Your task to perform on an android device: Do I have any events tomorrow? Image 0: 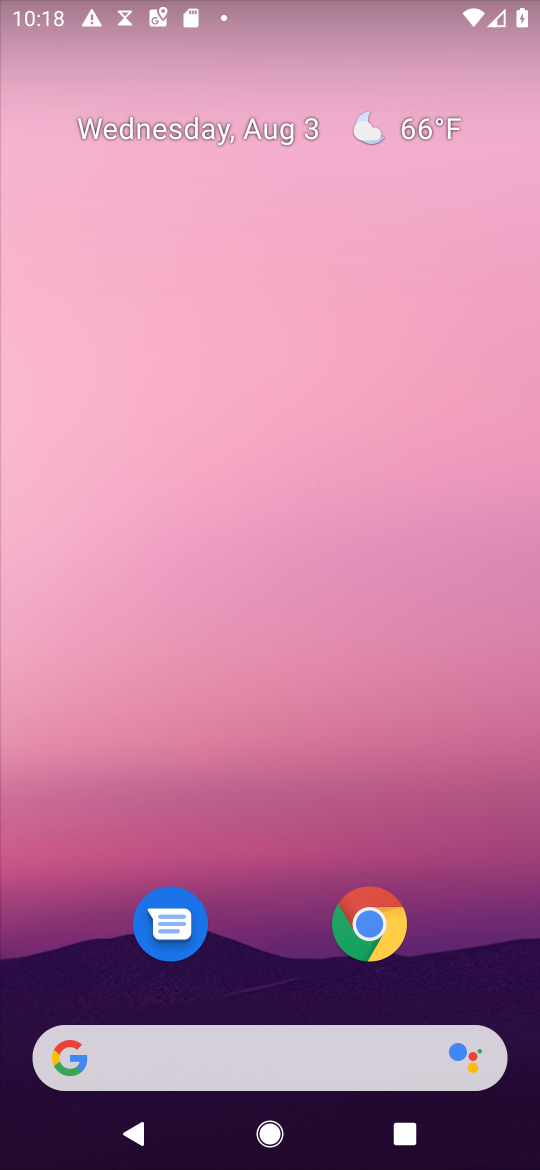
Step 0: press home button
Your task to perform on an android device: Do I have any events tomorrow? Image 1: 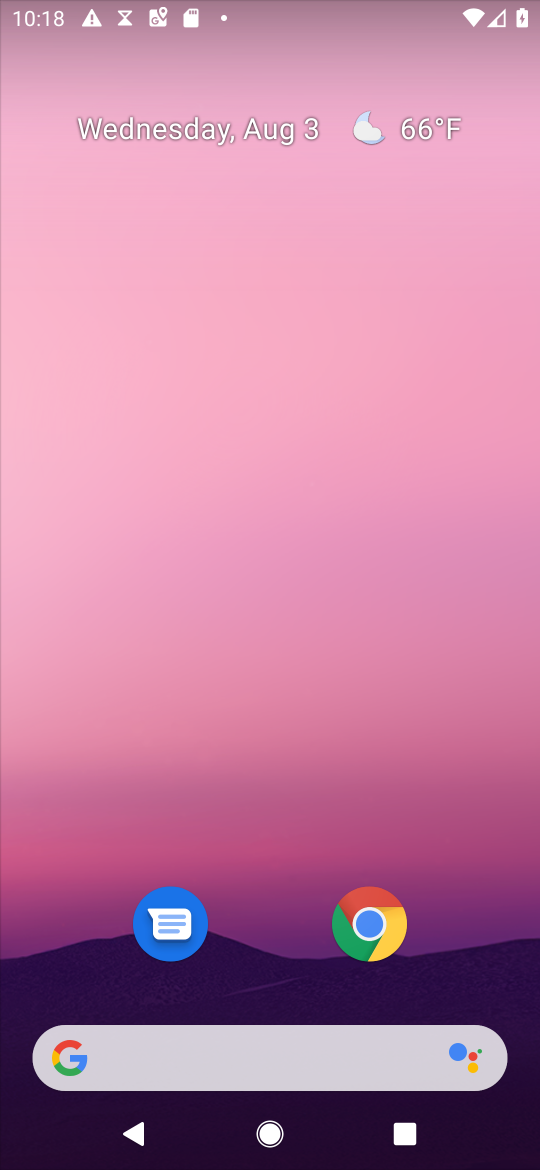
Step 1: press home button
Your task to perform on an android device: Do I have any events tomorrow? Image 2: 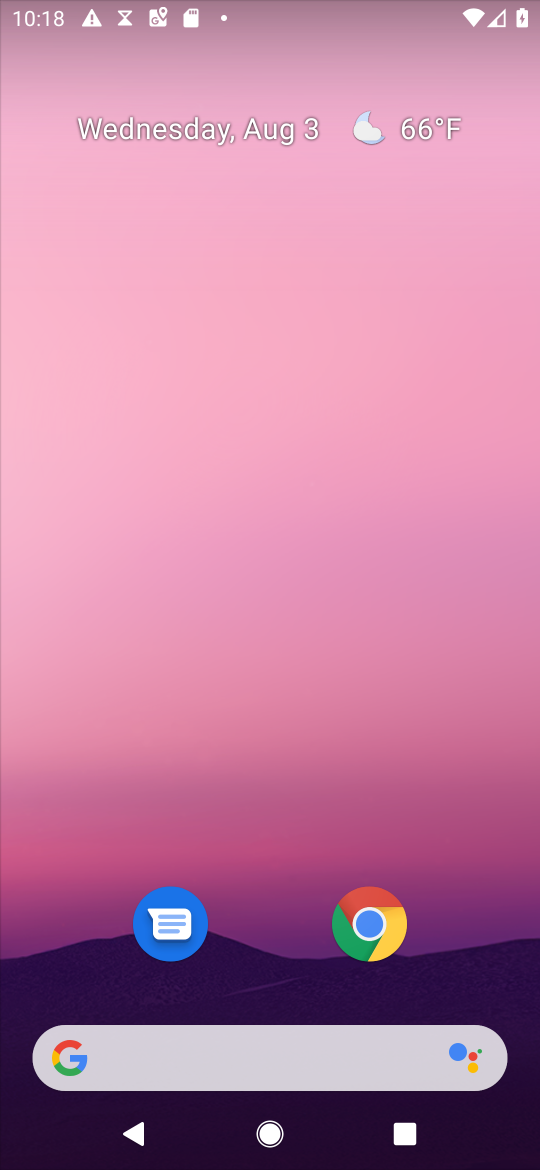
Step 2: drag from (268, 981) to (310, 77)
Your task to perform on an android device: Do I have any events tomorrow? Image 3: 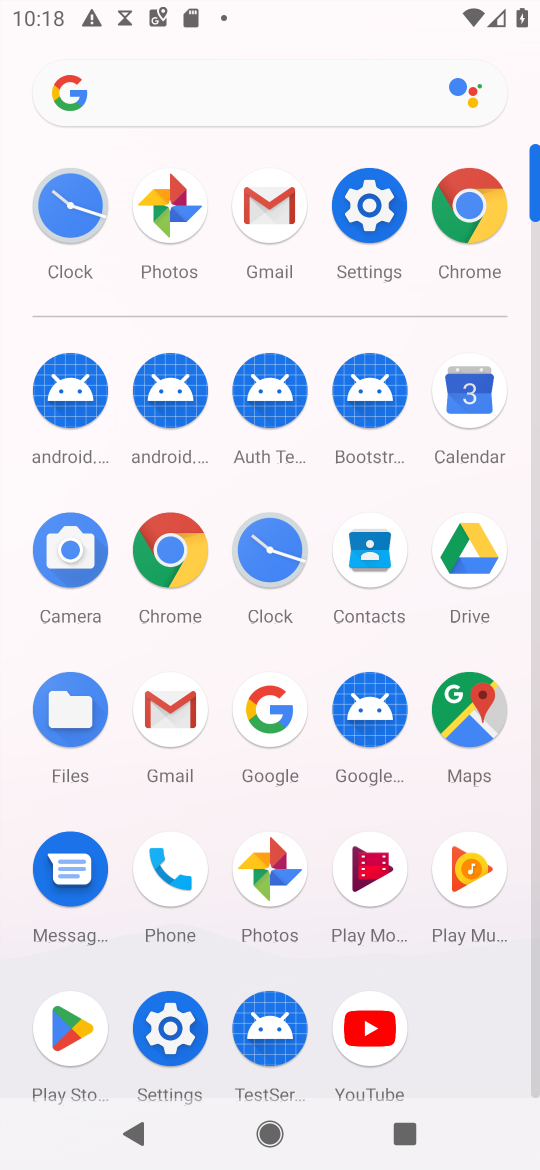
Step 3: click (472, 388)
Your task to perform on an android device: Do I have any events tomorrow? Image 4: 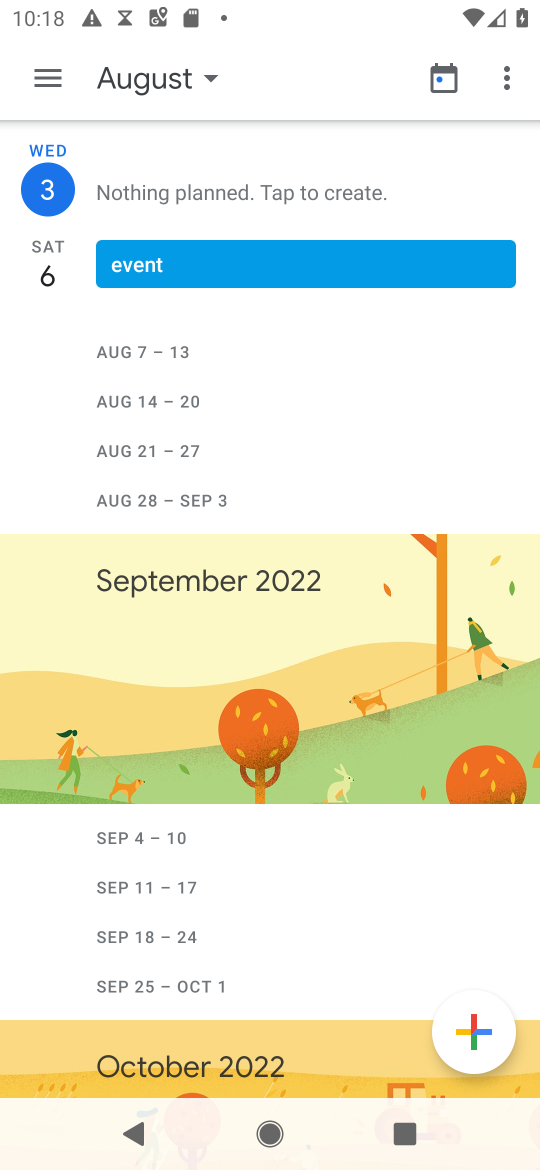
Step 4: click (202, 78)
Your task to perform on an android device: Do I have any events tomorrow? Image 5: 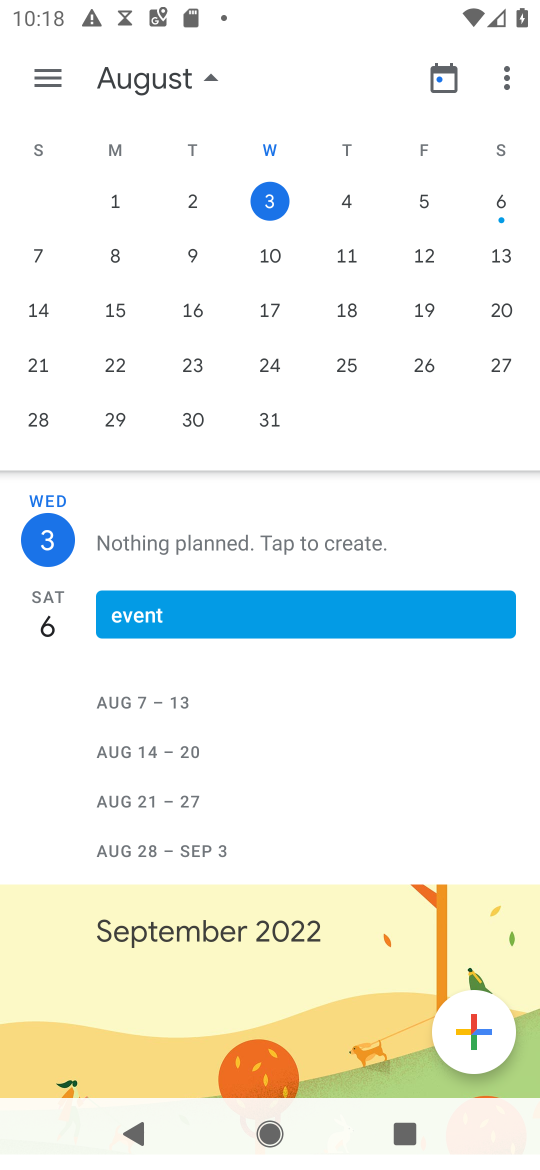
Step 5: click (352, 195)
Your task to perform on an android device: Do I have any events tomorrow? Image 6: 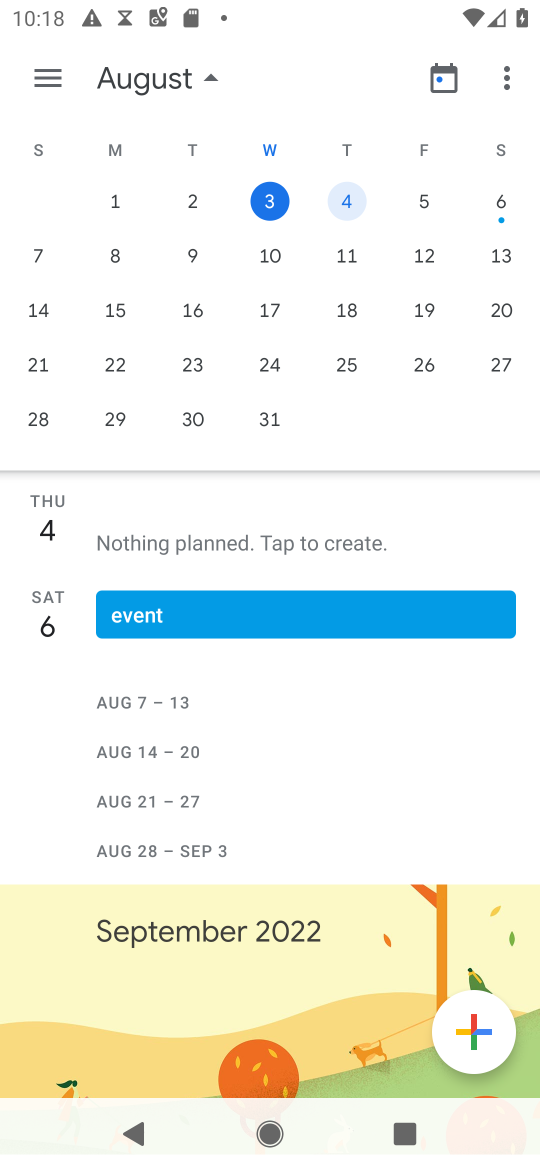
Step 6: click (60, 532)
Your task to perform on an android device: Do I have any events tomorrow? Image 7: 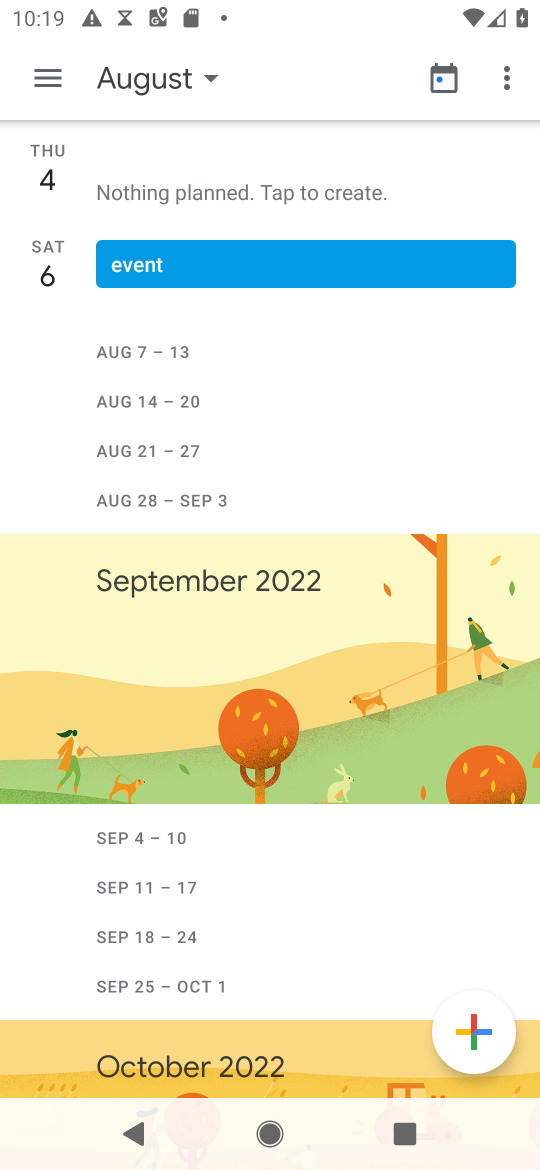
Step 7: click (69, 174)
Your task to perform on an android device: Do I have any events tomorrow? Image 8: 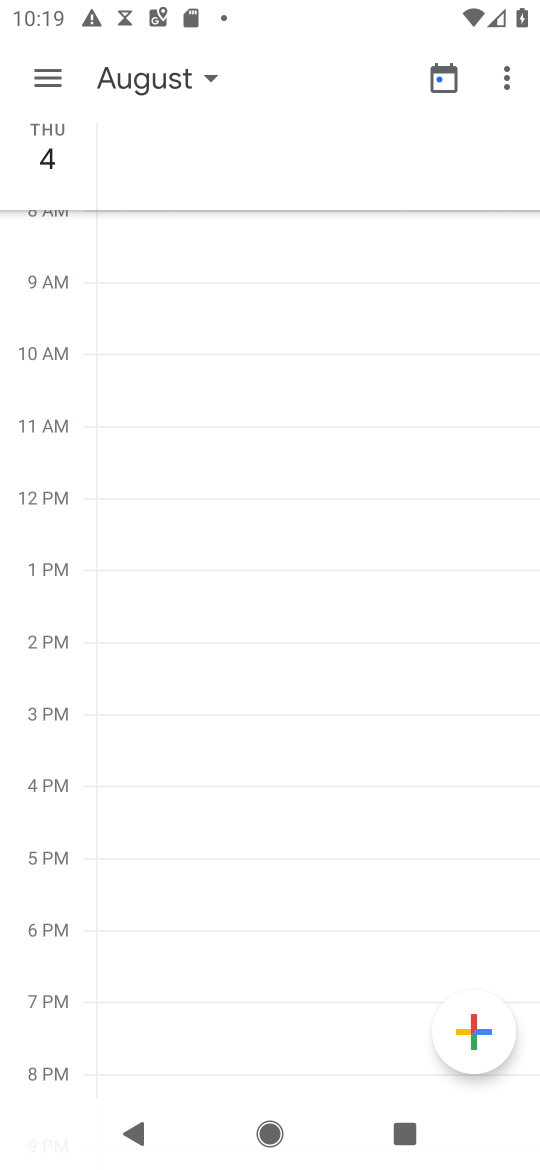
Step 8: drag from (84, 833) to (82, 189)
Your task to perform on an android device: Do I have any events tomorrow? Image 9: 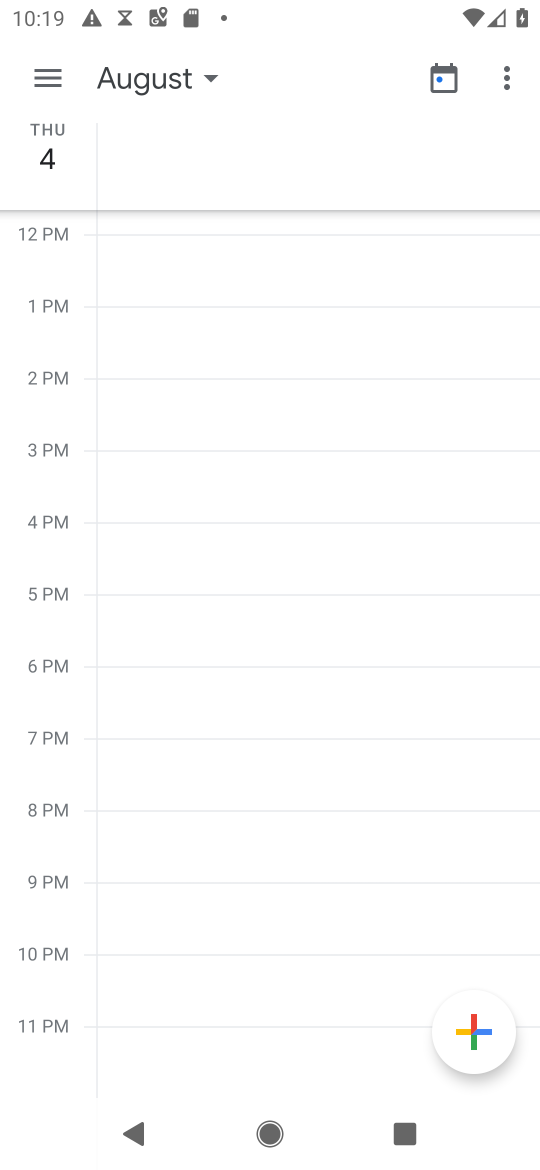
Step 9: click (44, 74)
Your task to perform on an android device: Do I have any events tomorrow? Image 10: 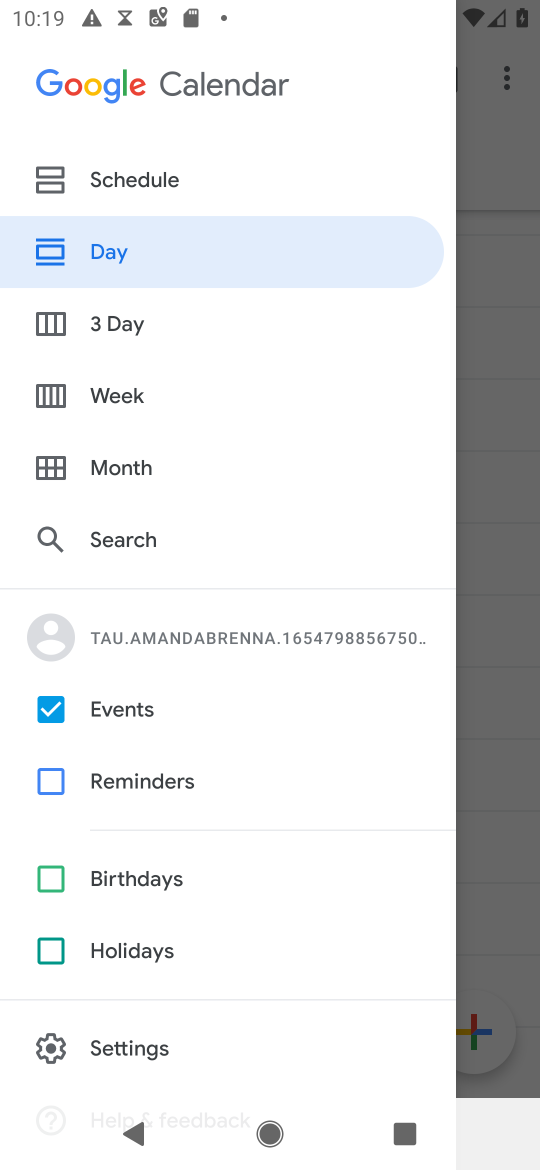
Step 10: click (111, 172)
Your task to perform on an android device: Do I have any events tomorrow? Image 11: 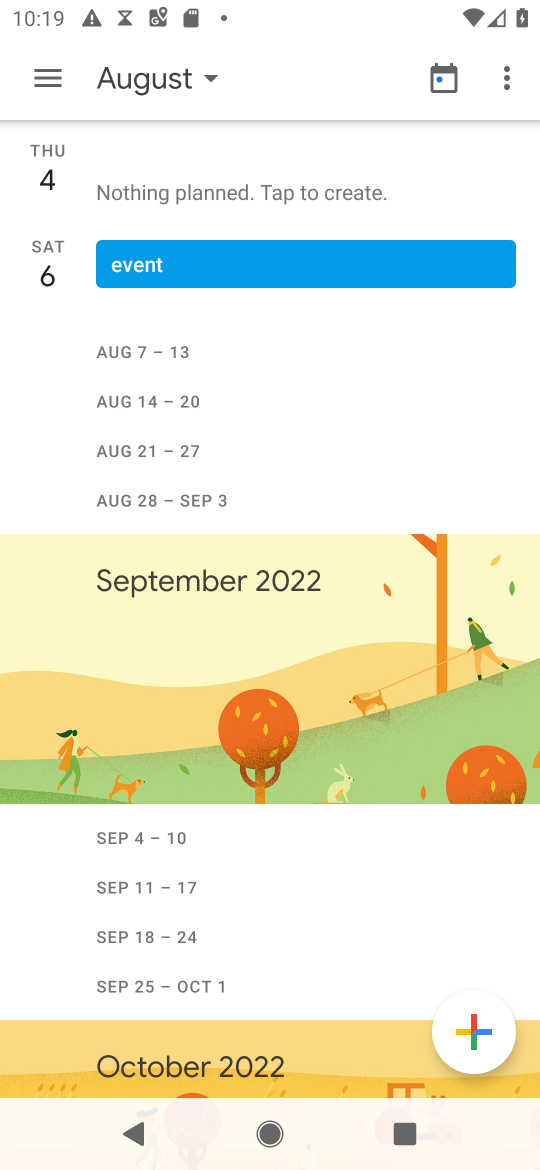
Step 11: click (67, 175)
Your task to perform on an android device: Do I have any events tomorrow? Image 12: 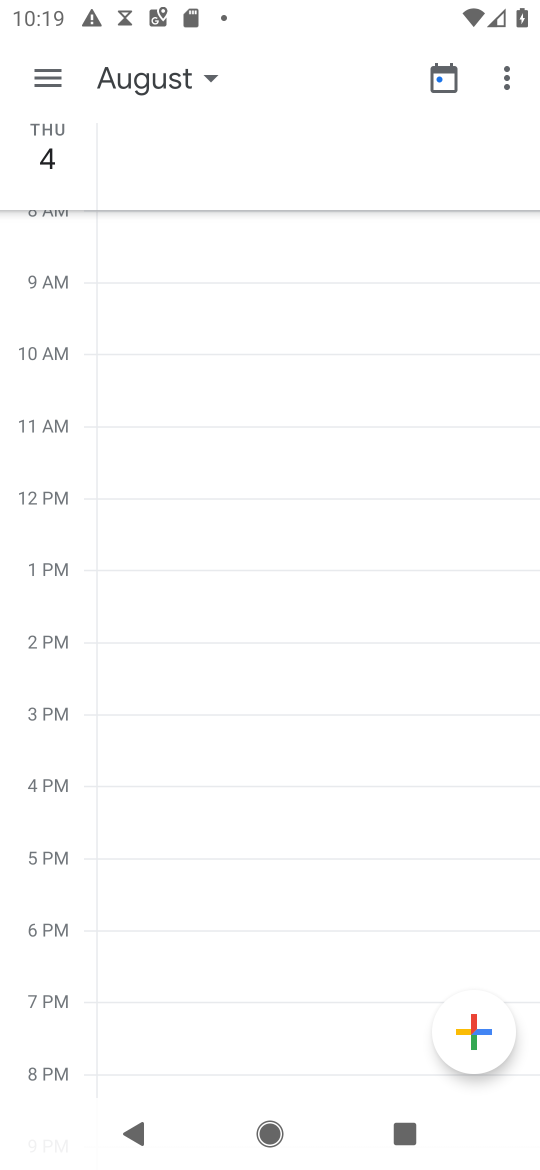
Step 12: task complete